Your task to perform on an android device: read, delete, or share a saved page in the chrome app Image 0: 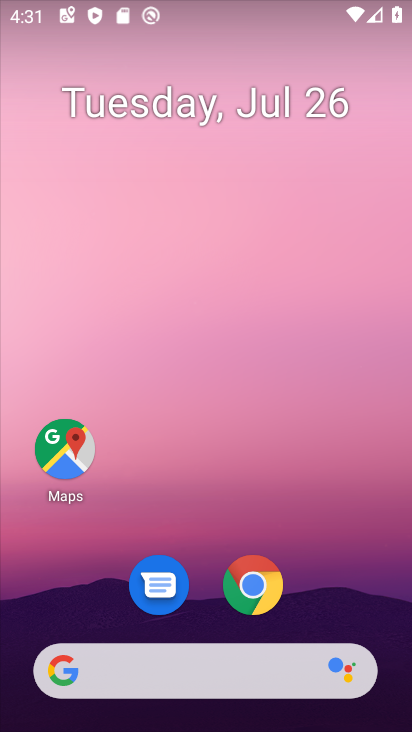
Step 0: click (255, 580)
Your task to perform on an android device: read, delete, or share a saved page in the chrome app Image 1: 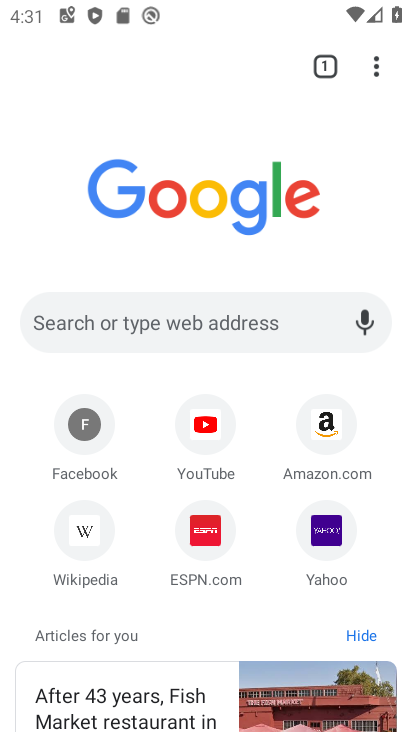
Step 1: click (376, 69)
Your task to perform on an android device: read, delete, or share a saved page in the chrome app Image 2: 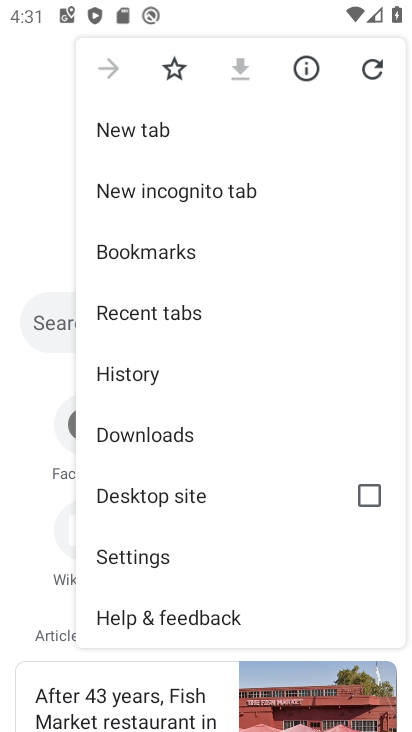
Step 2: click (170, 429)
Your task to perform on an android device: read, delete, or share a saved page in the chrome app Image 3: 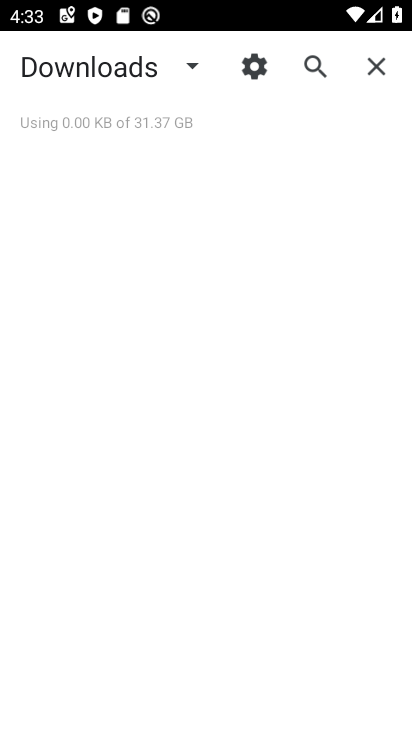
Step 3: task complete